Your task to perform on an android device: set the stopwatch Image 0: 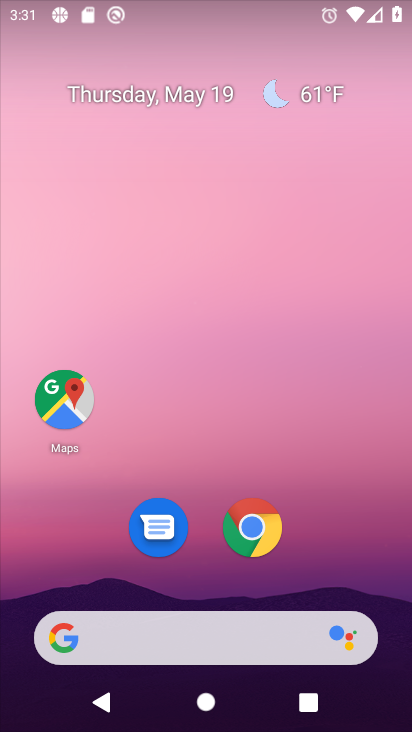
Step 0: drag from (152, 555) to (299, 2)
Your task to perform on an android device: set the stopwatch Image 1: 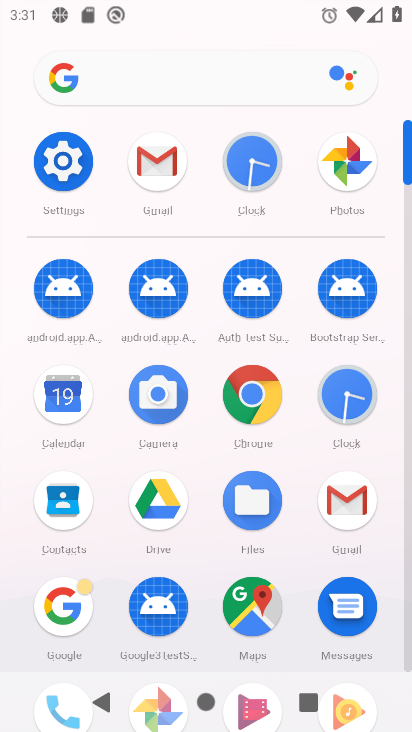
Step 1: click (347, 385)
Your task to perform on an android device: set the stopwatch Image 2: 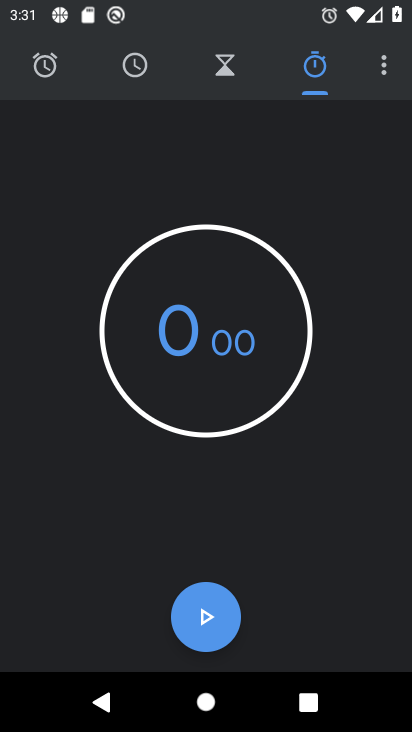
Step 2: click (223, 347)
Your task to perform on an android device: set the stopwatch Image 3: 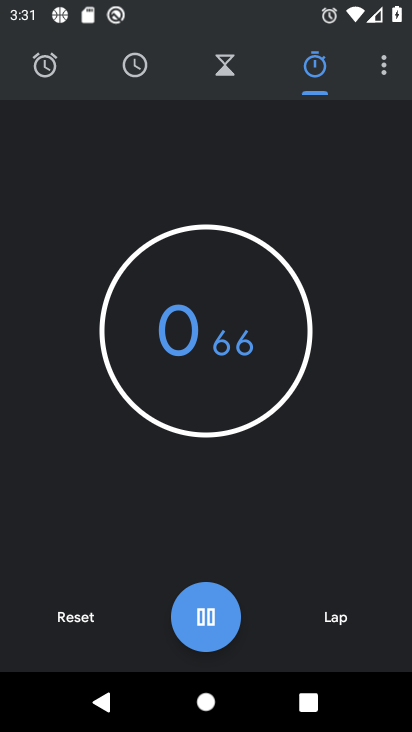
Step 3: click (219, 346)
Your task to perform on an android device: set the stopwatch Image 4: 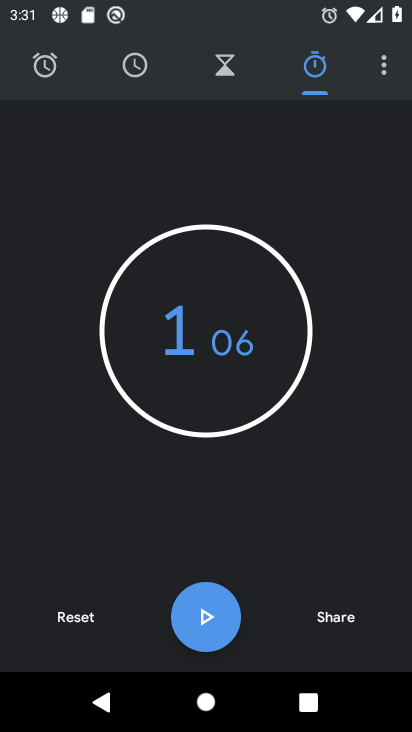
Step 4: task complete